Your task to perform on an android device: Show me productivity apps on the Play Store Image 0: 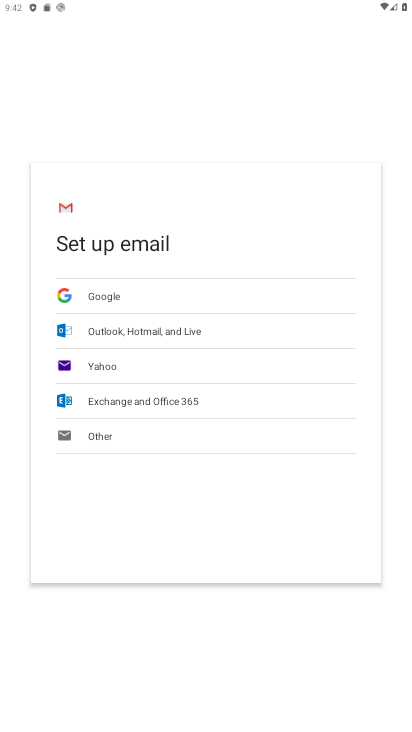
Step 0: press home button
Your task to perform on an android device: Show me productivity apps on the Play Store Image 1: 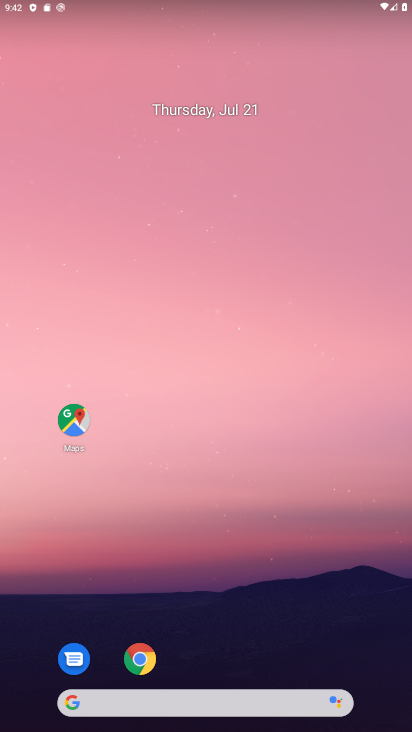
Step 1: drag from (290, 571) to (258, 90)
Your task to perform on an android device: Show me productivity apps on the Play Store Image 2: 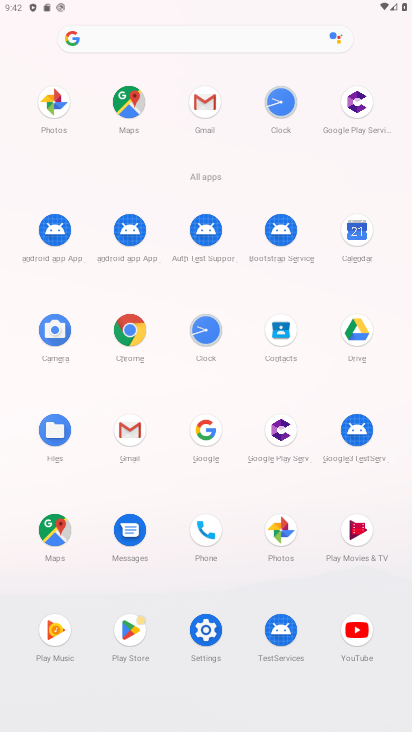
Step 2: click (128, 640)
Your task to perform on an android device: Show me productivity apps on the Play Store Image 3: 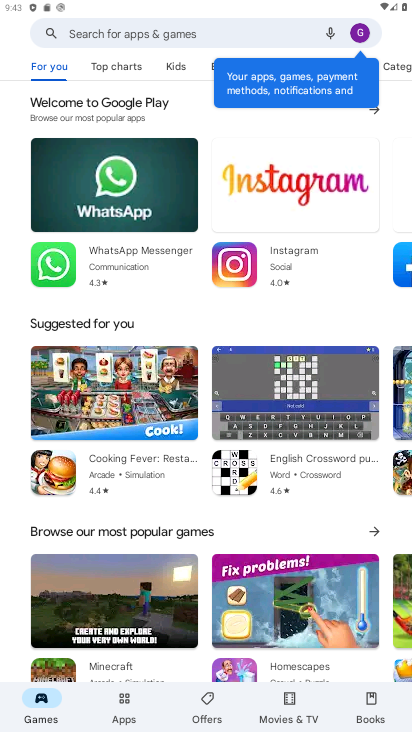
Step 3: click (127, 718)
Your task to perform on an android device: Show me productivity apps on the Play Store Image 4: 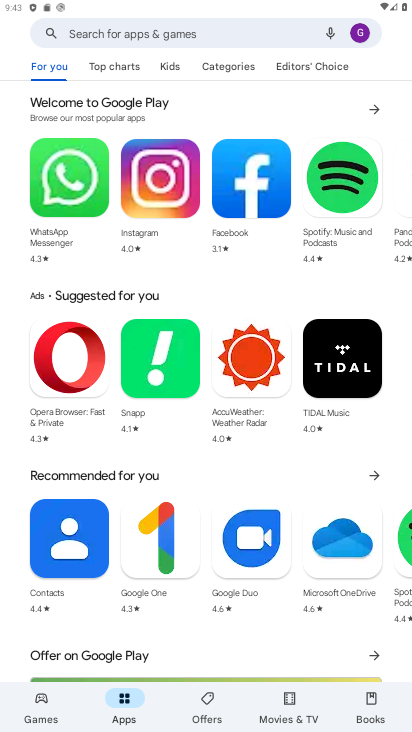
Step 4: task complete